Your task to perform on an android device: change alarm snooze length Image 0: 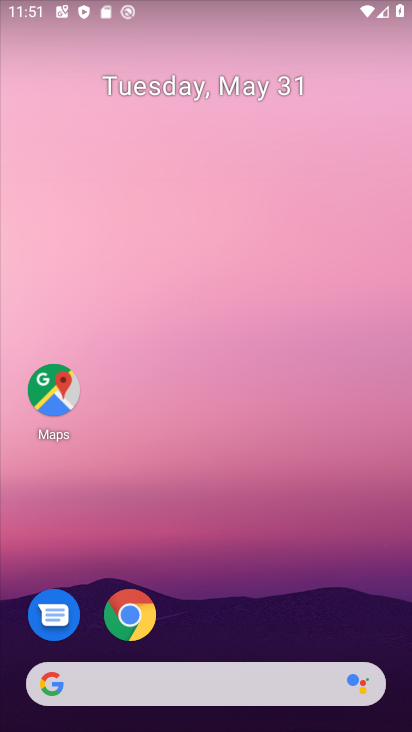
Step 0: task complete